Your task to perform on an android device: turn off javascript in the chrome app Image 0: 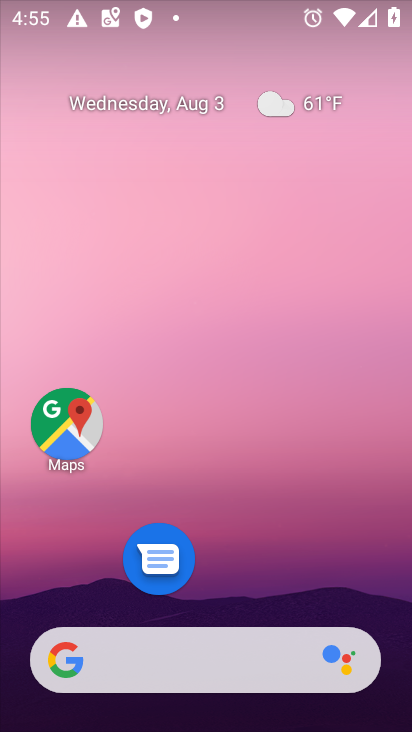
Step 0: drag from (205, 632) to (213, 254)
Your task to perform on an android device: turn off javascript in the chrome app Image 1: 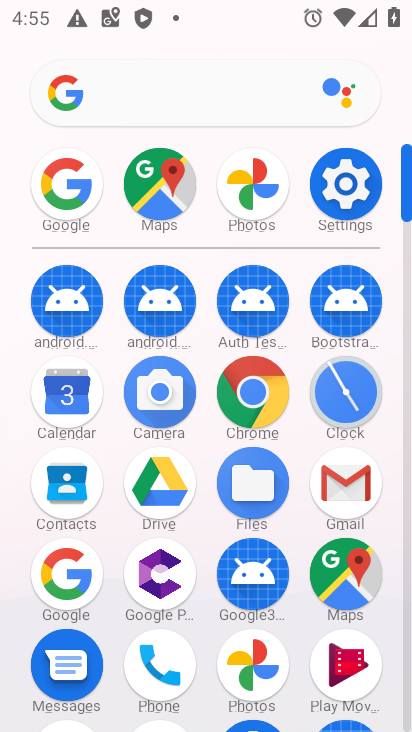
Step 1: click (242, 395)
Your task to perform on an android device: turn off javascript in the chrome app Image 2: 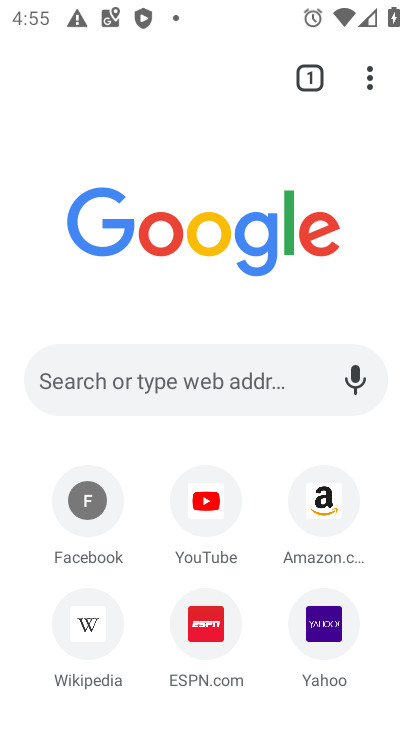
Step 2: click (377, 70)
Your task to perform on an android device: turn off javascript in the chrome app Image 3: 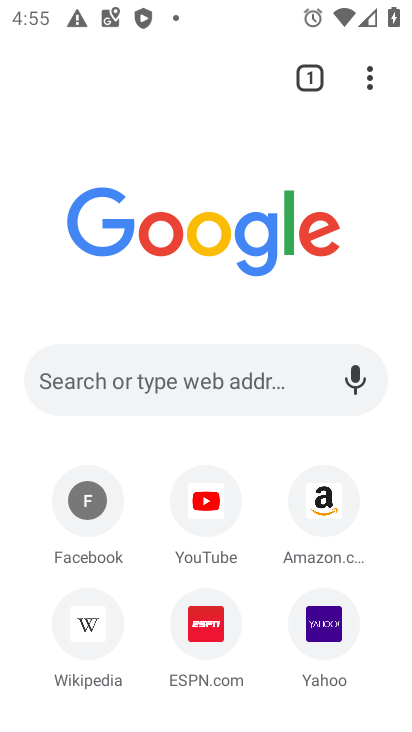
Step 3: click (368, 84)
Your task to perform on an android device: turn off javascript in the chrome app Image 4: 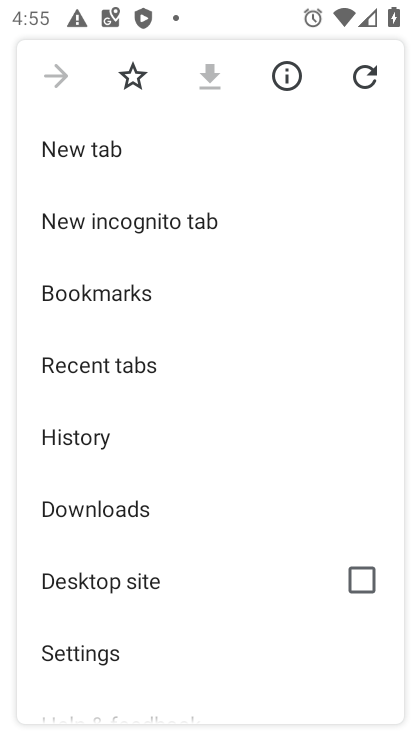
Step 4: click (94, 653)
Your task to perform on an android device: turn off javascript in the chrome app Image 5: 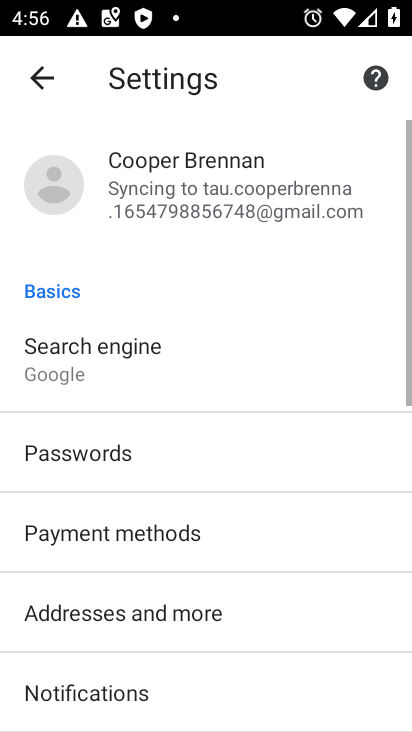
Step 5: drag from (92, 655) to (97, 211)
Your task to perform on an android device: turn off javascript in the chrome app Image 6: 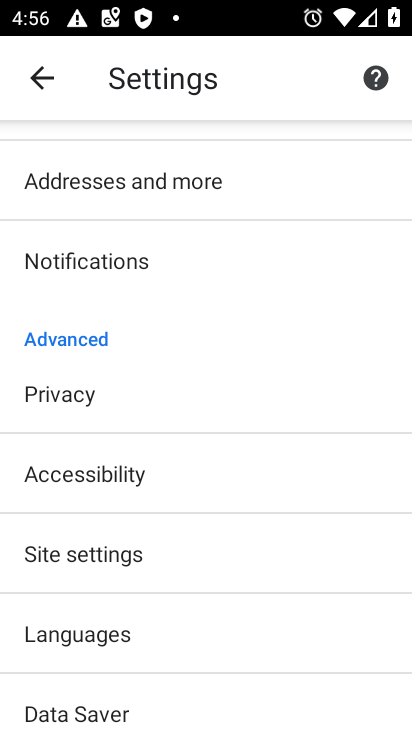
Step 6: click (55, 557)
Your task to perform on an android device: turn off javascript in the chrome app Image 7: 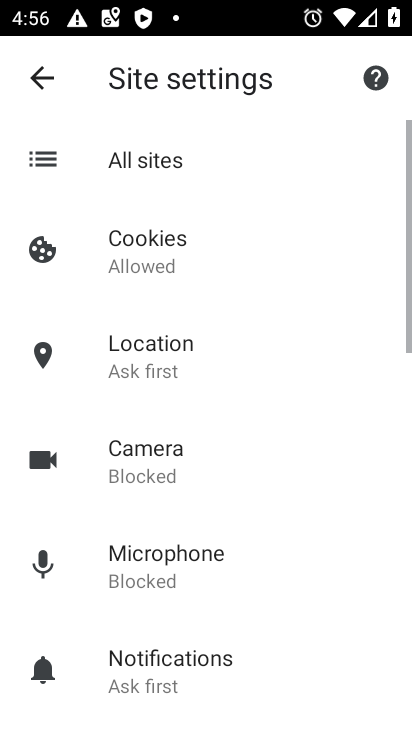
Step 7: click (120, 393)
Your task to perform on an android device: turn off javascript in the chrome app Image 8: 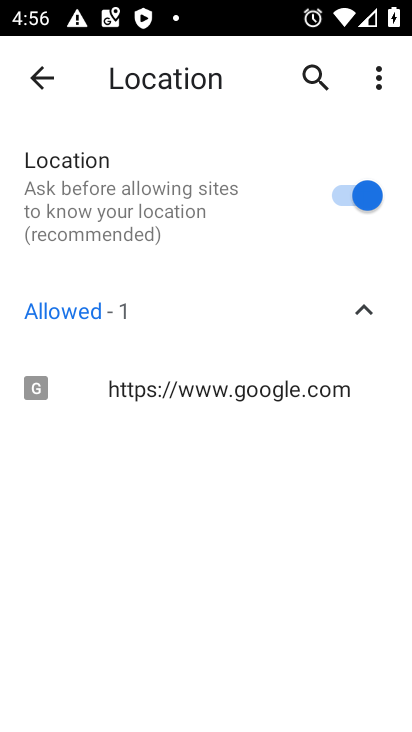
Step 8: click (37, 81)
Your task to perform on an android device: turn off javascript in the chrome app Image 9: 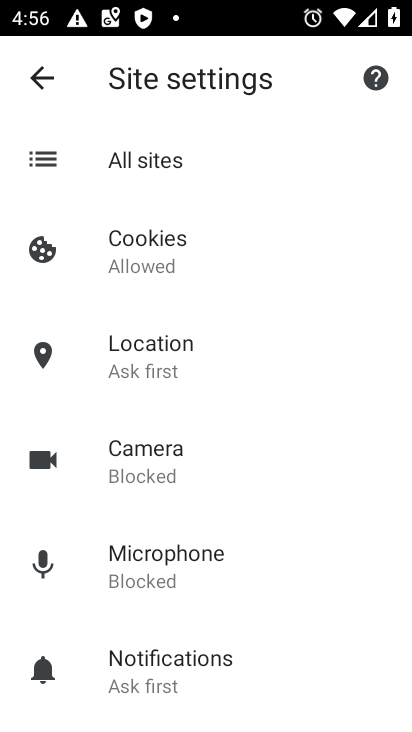
Step 9: drag from (196, 692) to (208, 208)
Your task to perform on an android device: turn off javascript in the chrome app Image 10: 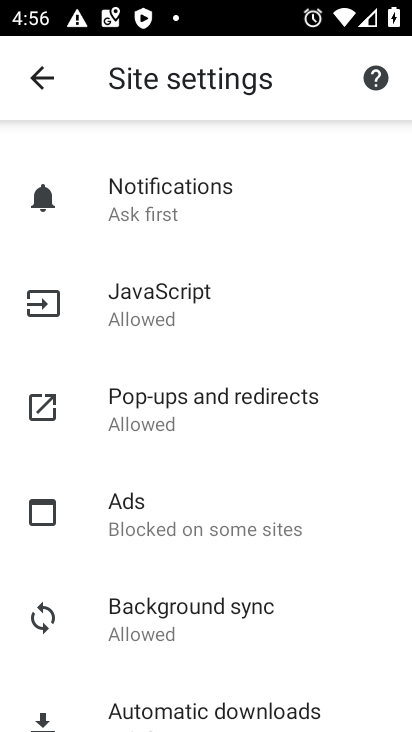
Step 10: click (182, 309)
Your task to perform on an android device: turn off javascript in the chrome app Image 11: 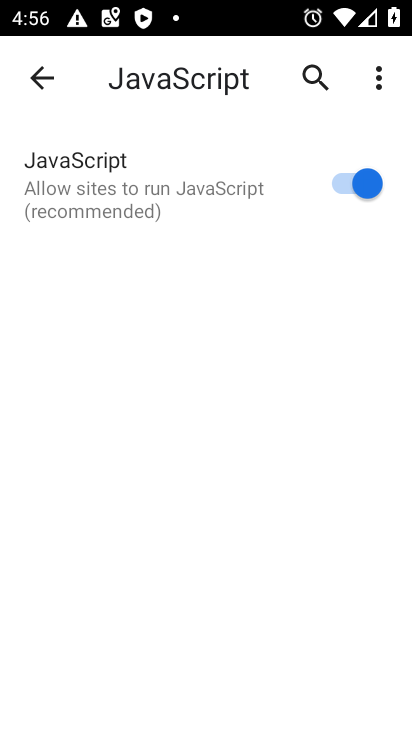
Step 11: click (353, 188)
Your task to perform on an android device: turn off javascript in the chrome app Image 12: 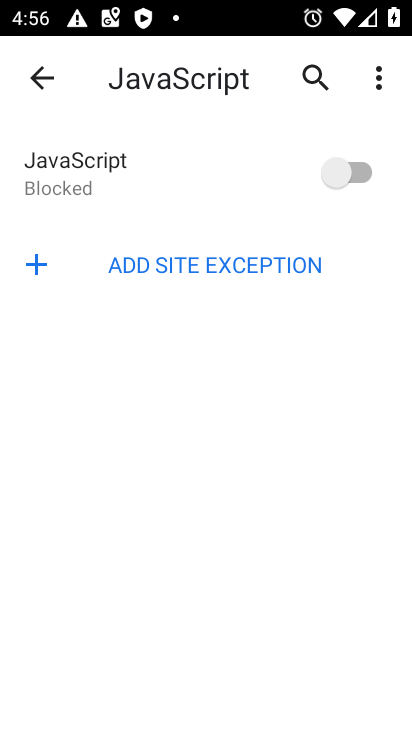
Step 12: task complete